Your task to perform on an android device: check storage Image 0: 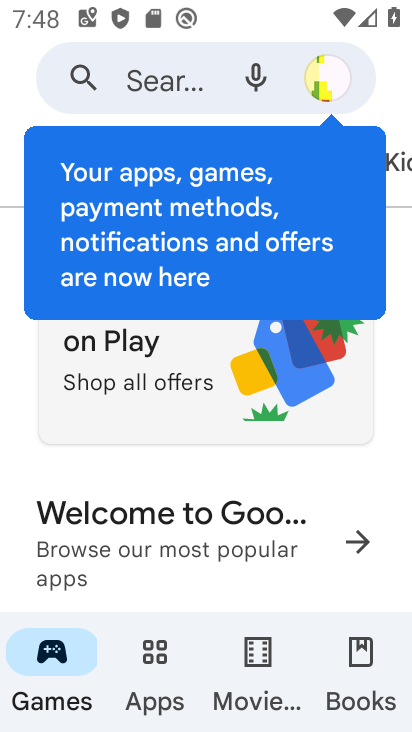
Step 0: press home button
Your task to perform on an android device: check storage Image 1: 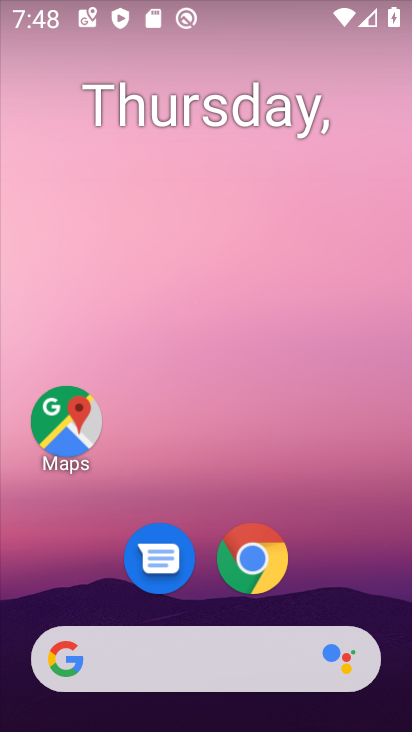
Step 1: drag from (121, 619) to (220, 99)
Your task to perform on an android device: check storage Image 2: 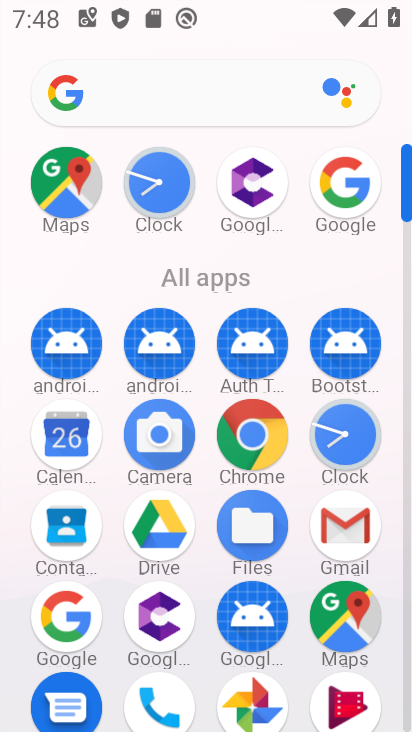
Step 2: drag from (113, 604) to (139, 169)
Your task to perform on an android device: check storage Image 3: 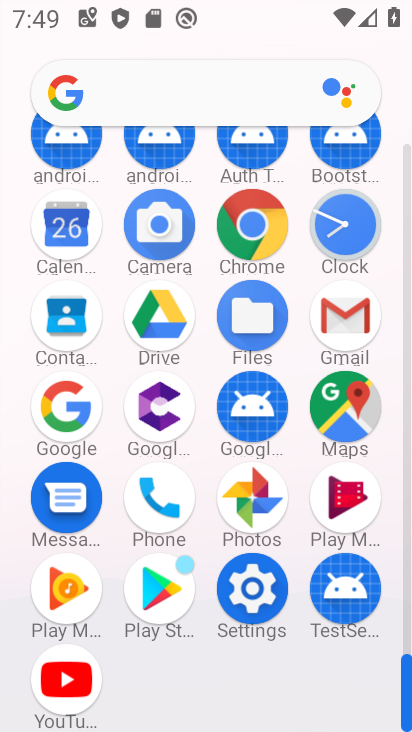
Step 3: click (254, 587)
Your task to perform on an android device: check storage Image 4: 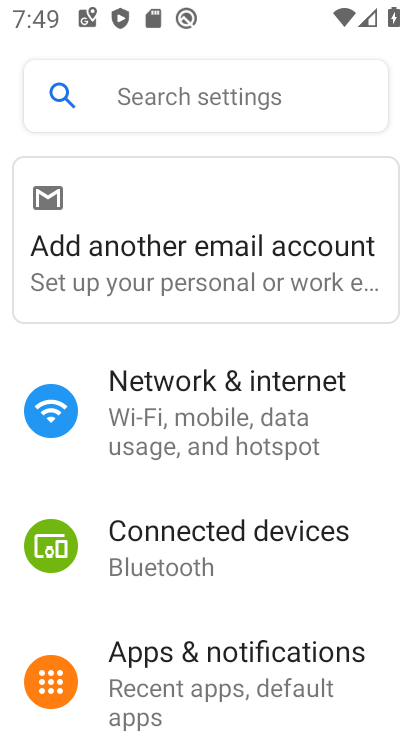
Step 4: drag from (203, 723) to (264, 278)
Your task to perform on an android device: check storage Image 5: 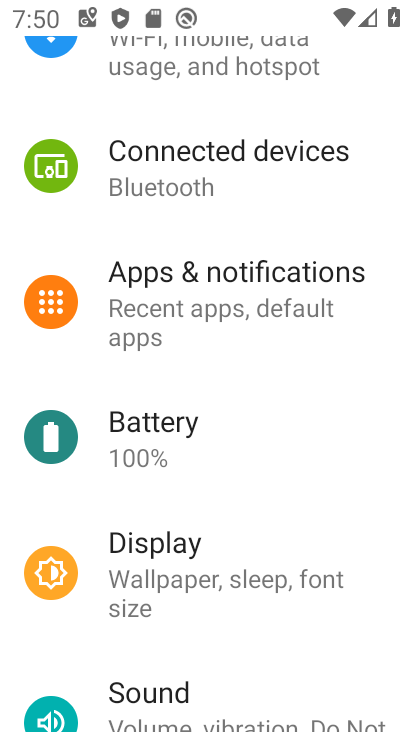
Step 5: drag from (187, 571) to (244, 157)
Your task to perform on an android device: check storage Image 6: 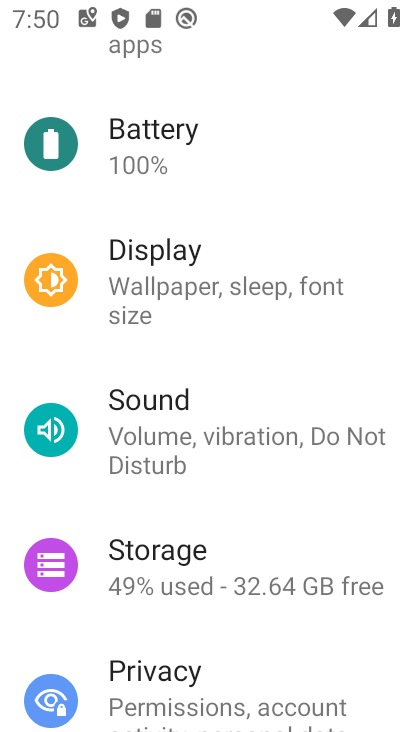
Step 6: click (185, 534)
Your task to perform on an android device: check storage Image 7: 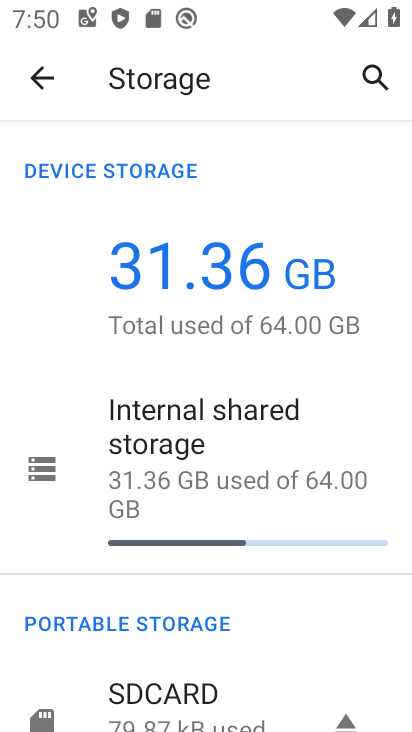
Step 7: task complete